Your task to perform on an android device: Open ESPN.com Image 0: 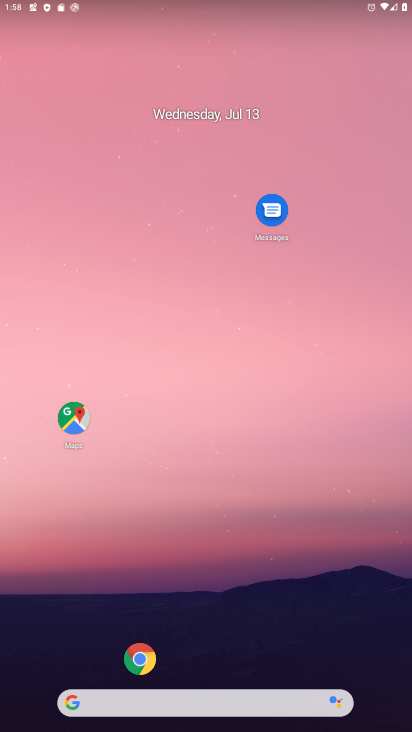
Step 0: drag from (125, 687) to (125, 726)
Your task to perform on an android device: Open ESPN.com Image 1: 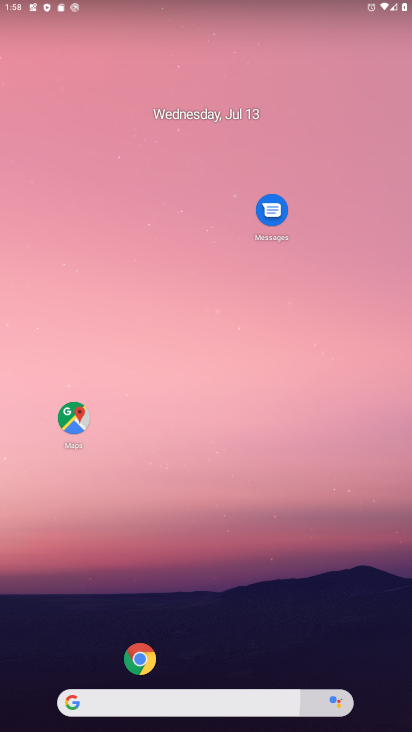
Step 1: click (119, 718)
Your task to perform on an android device: Open ESPN.com Image 2: 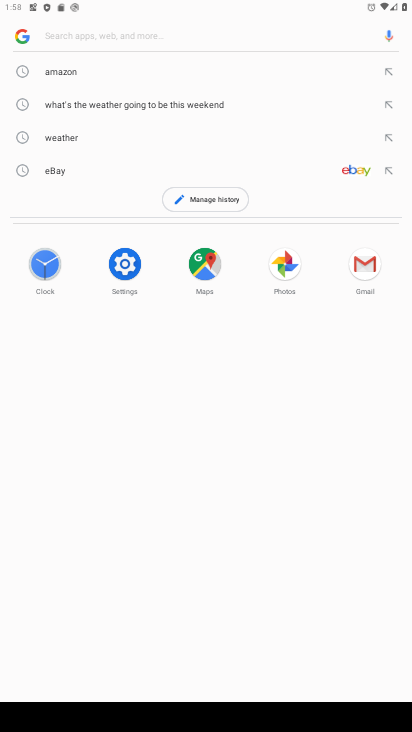
Step 2: type "ESPN.com"
Your task to perform on an android device: Open ESPN.com Image 3: 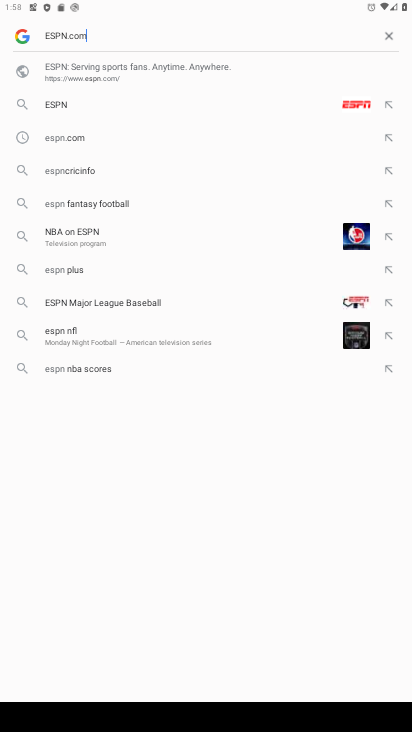
Step 3: type ""
Your task to perform on an android device: Open ESPN.com Image 4: 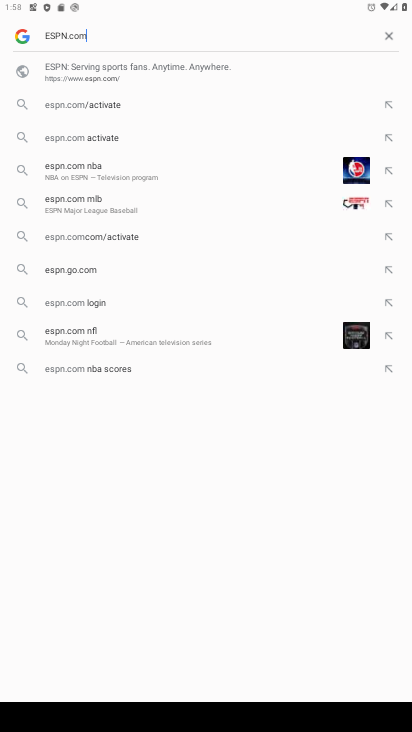
Step 4: type ""
Your task to perform on an android device: Open ESPN.com Image 5: 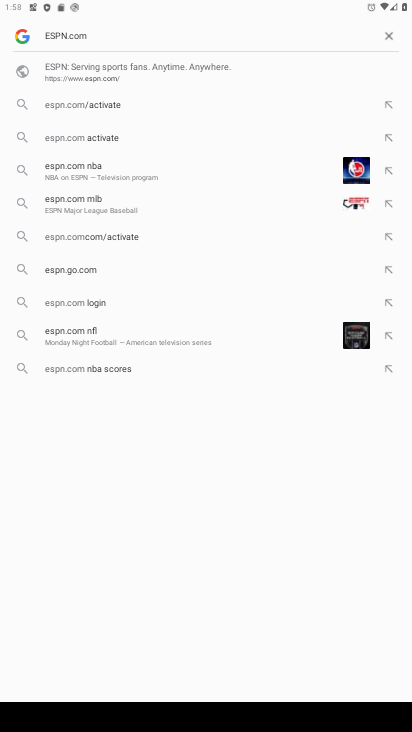
Step 5: type ""
Your task to perform on an android device: Open ESPN.com Image 6: 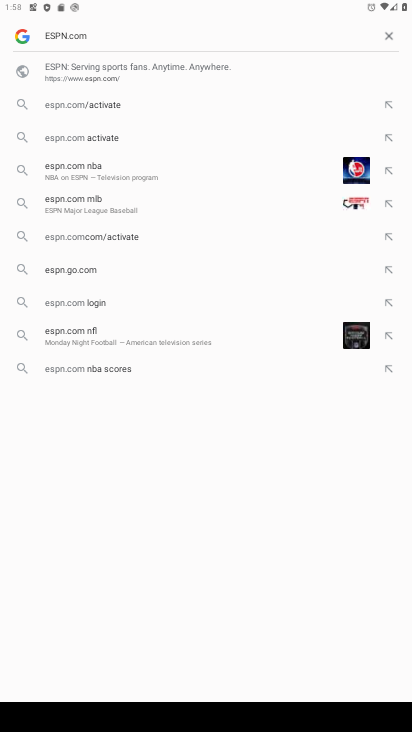
Step 6: type ""
Your task to perform on an android device: Open ESPN.com Image 7: 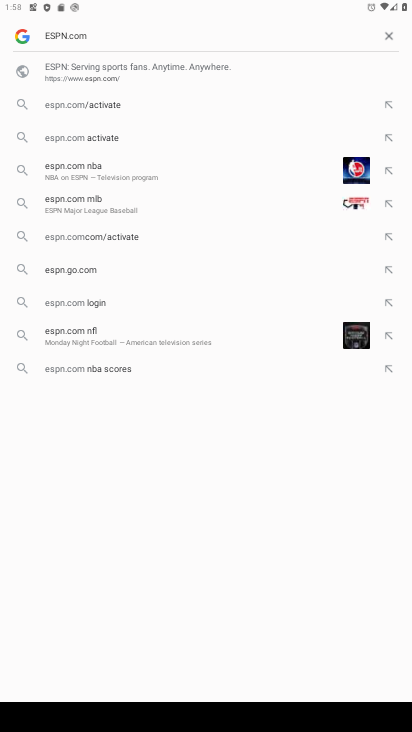
Step 7: type ""
Your task to perform on an android device: Open ESPN.com Image 8: 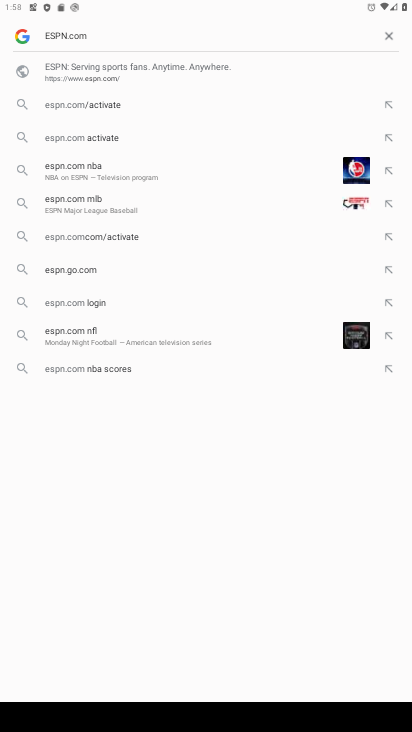
Step 8: type ""
Your task to perform on an android device: Open ESPN.com Image 9: 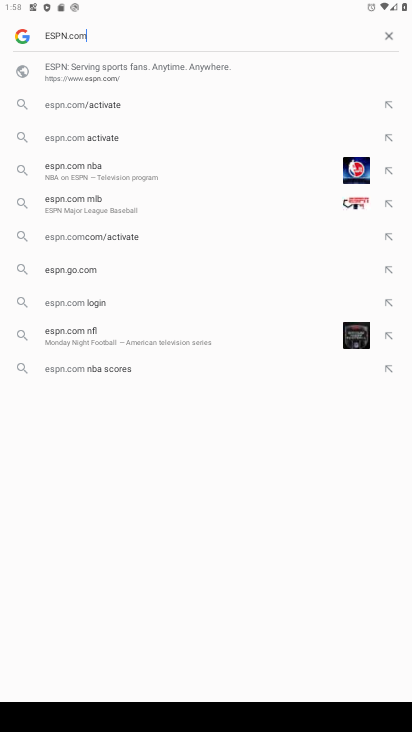
Step 9: task complete